Your task to perform on an android device: change keyboard looks Image 0: 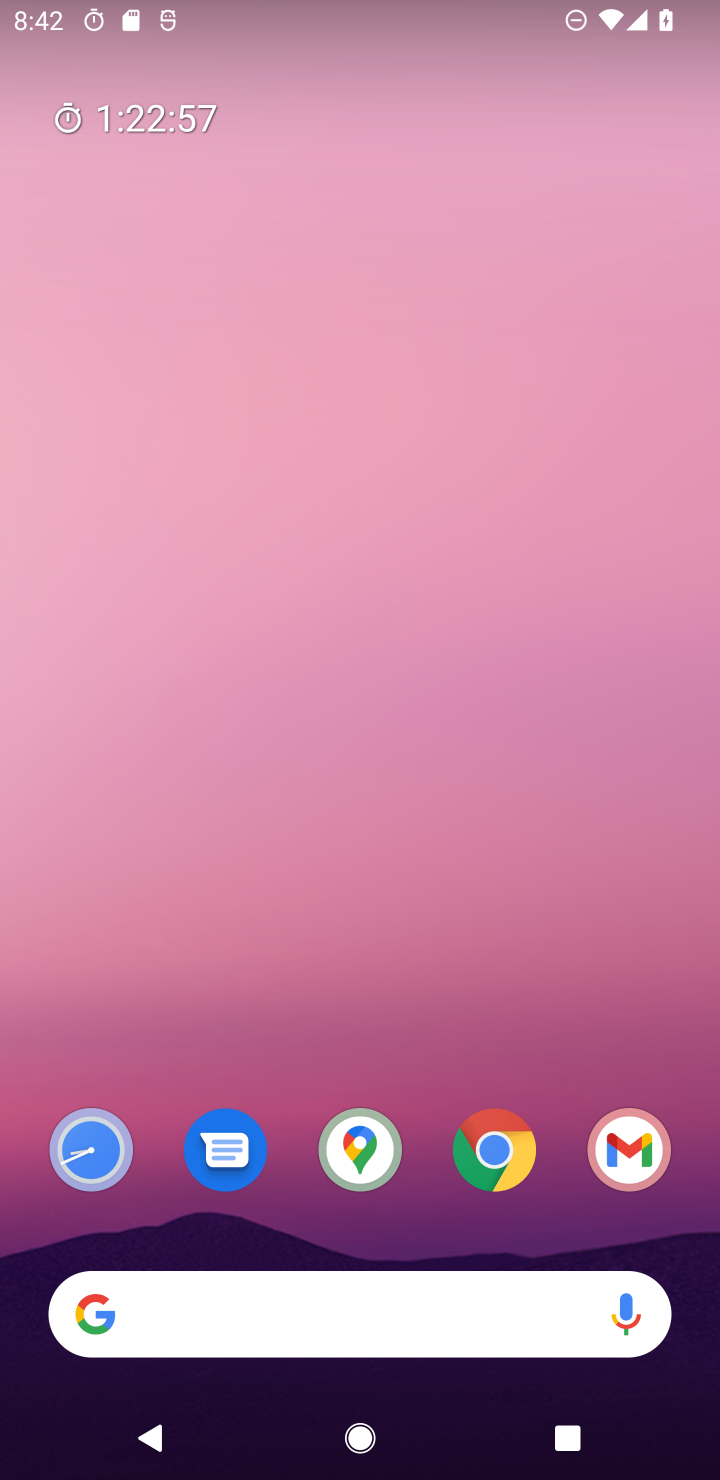
Step 0: drag from (502, 1169) to (562, 1)
Your task to perform on an android device: change keyboard looks Image 1: 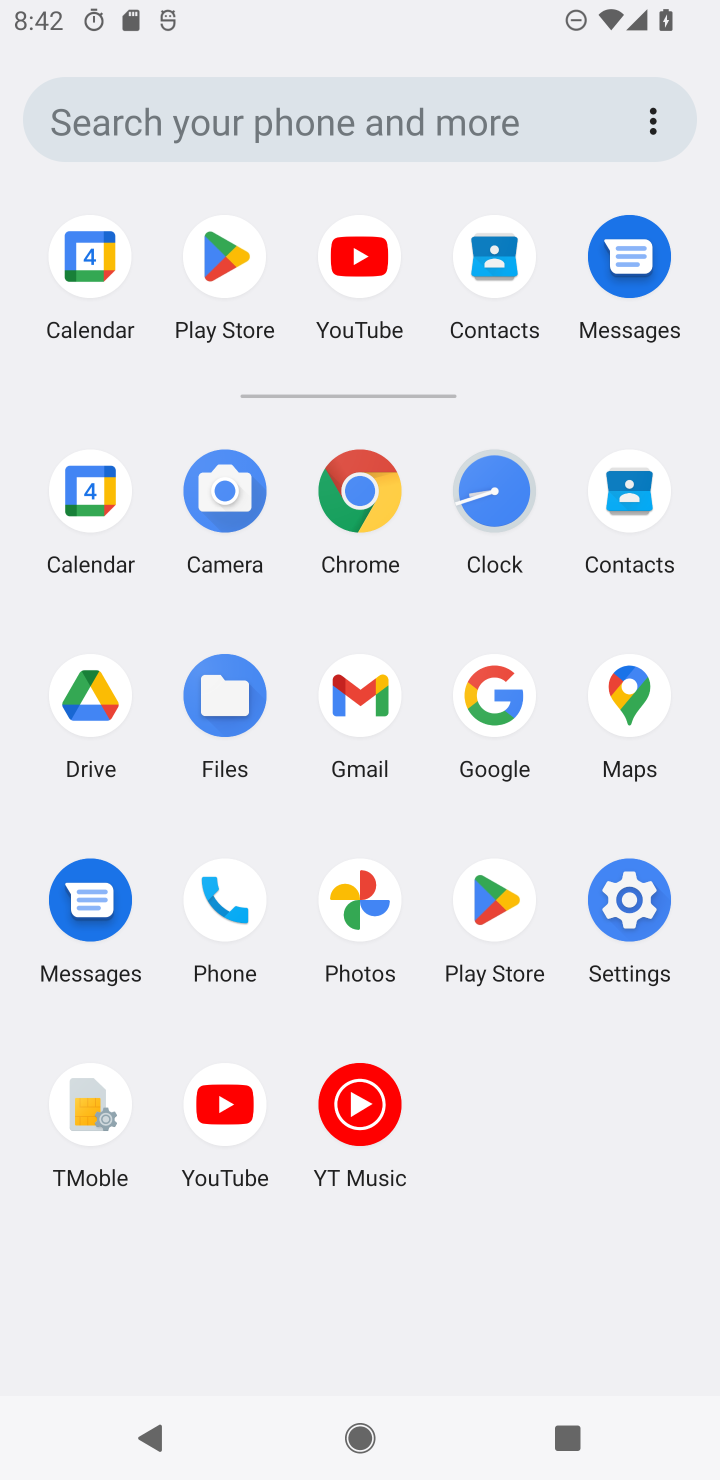
Step 1: click (631, 902)
Your task to perform on an android device: change keyboard looks Image 2: 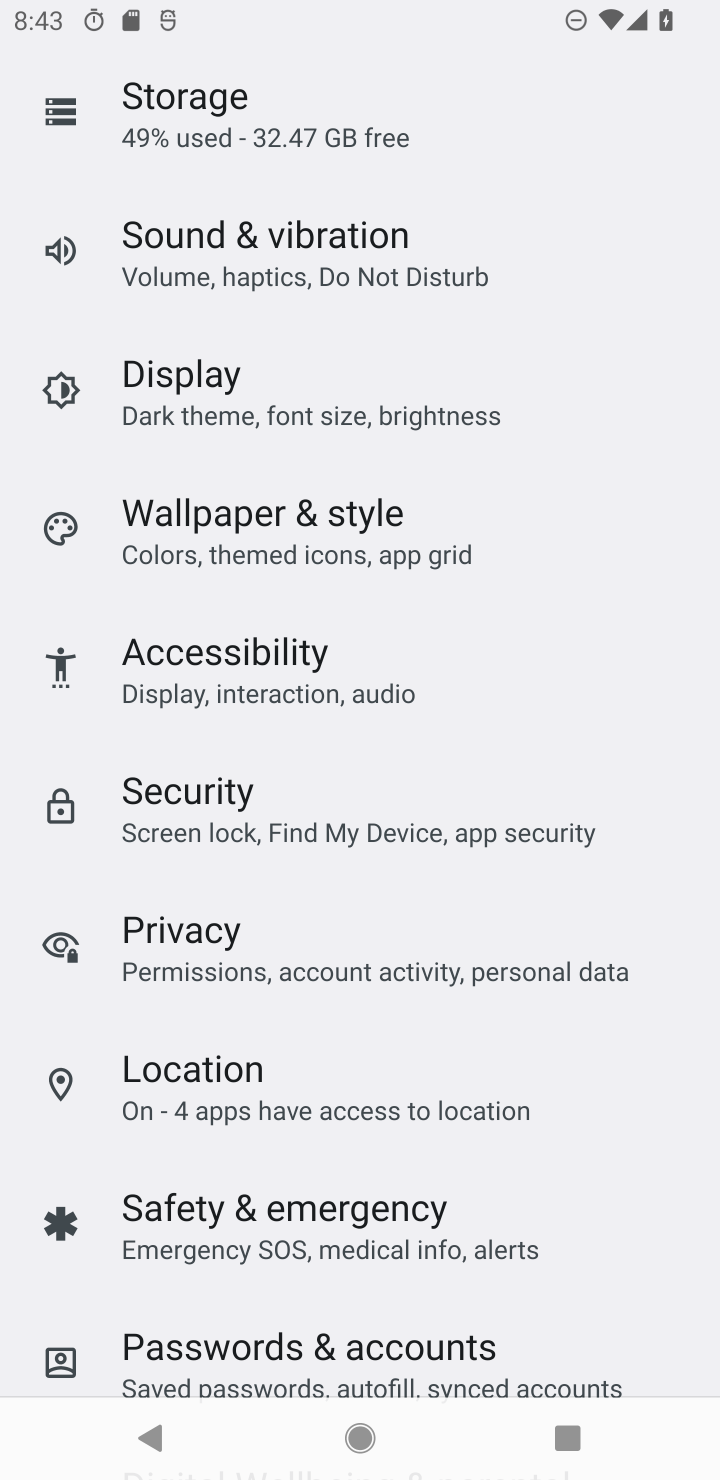
Step 2: drag from (272, 1280) to (270, 305)
Your task to perform on an android device: change keyboard looks Image 3: 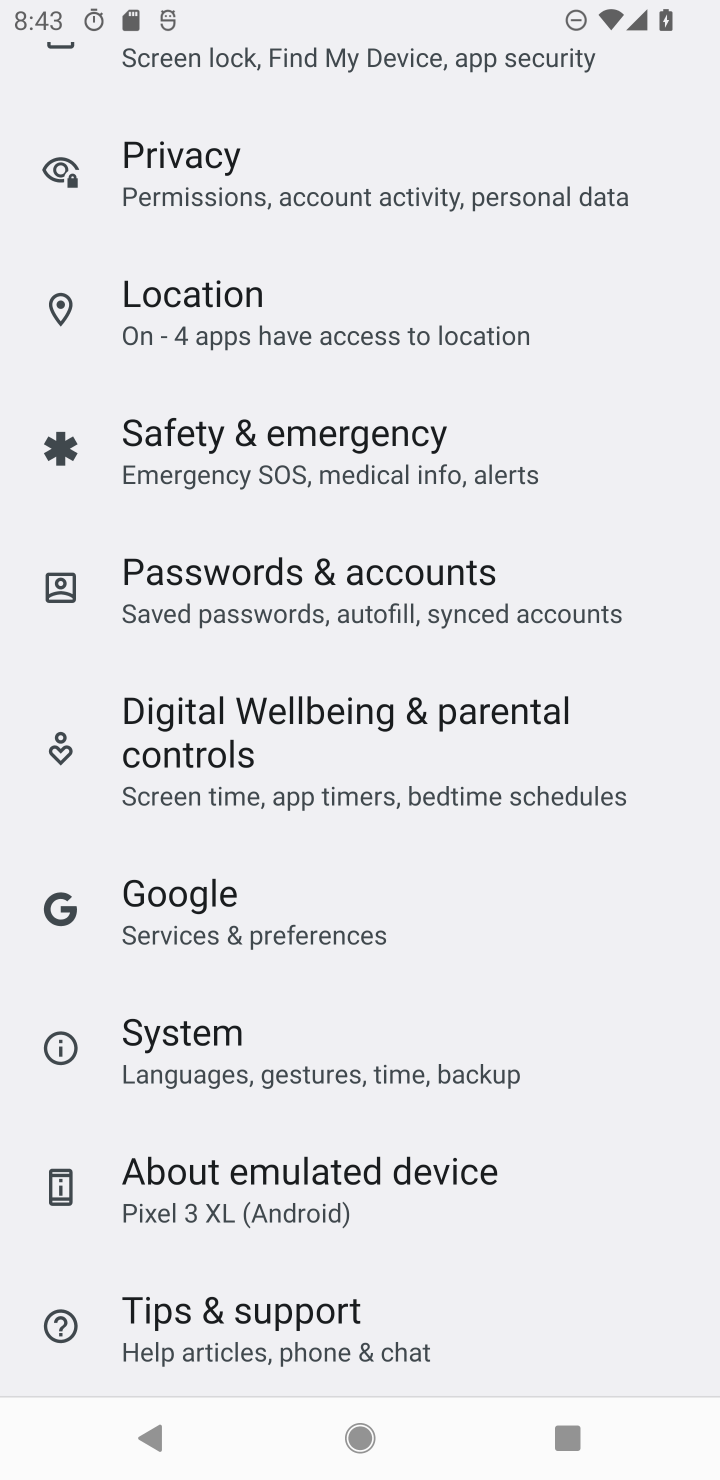
Step 3: click (299, 1059)
Your task to perform on an android device: change keyboard looks Image 4: 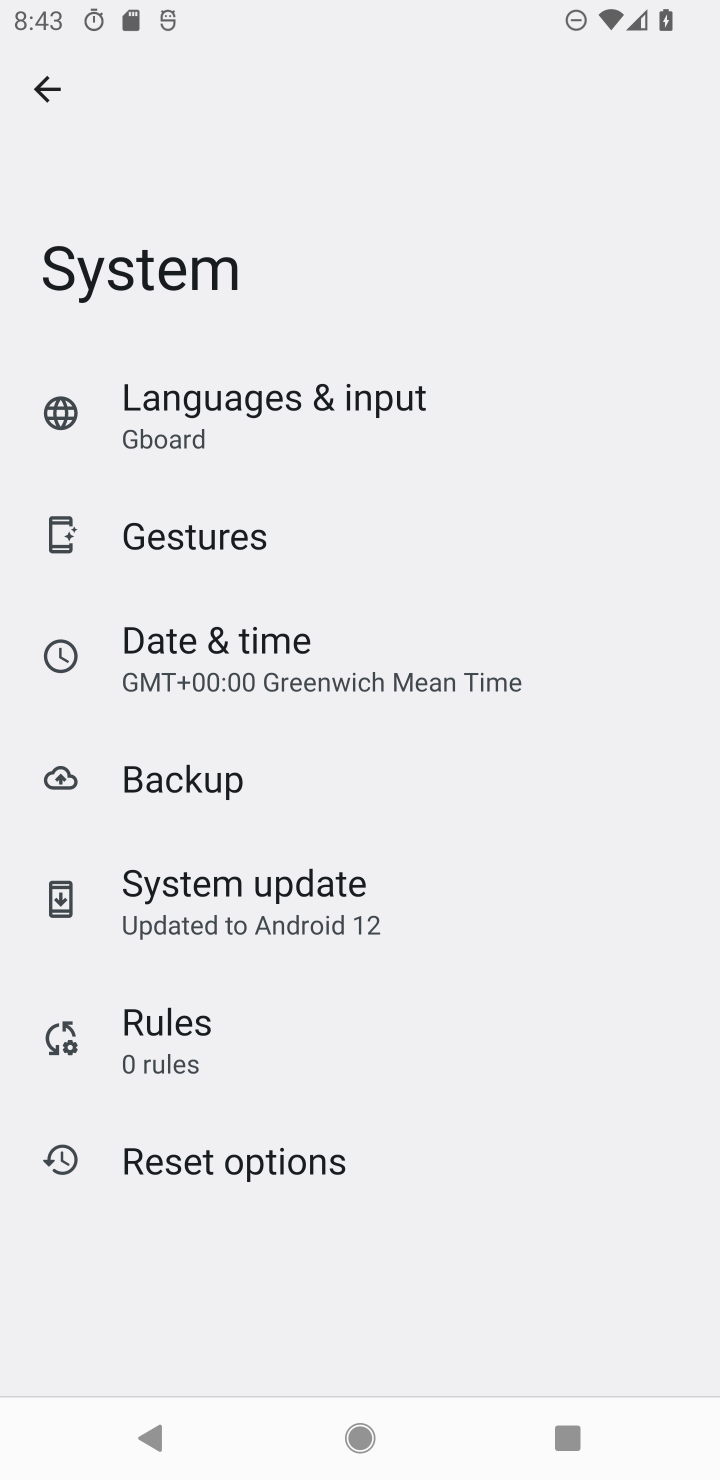
Step 4: click (246, 442)
Your task to perform on an android device: change keyboard looks Image 5: 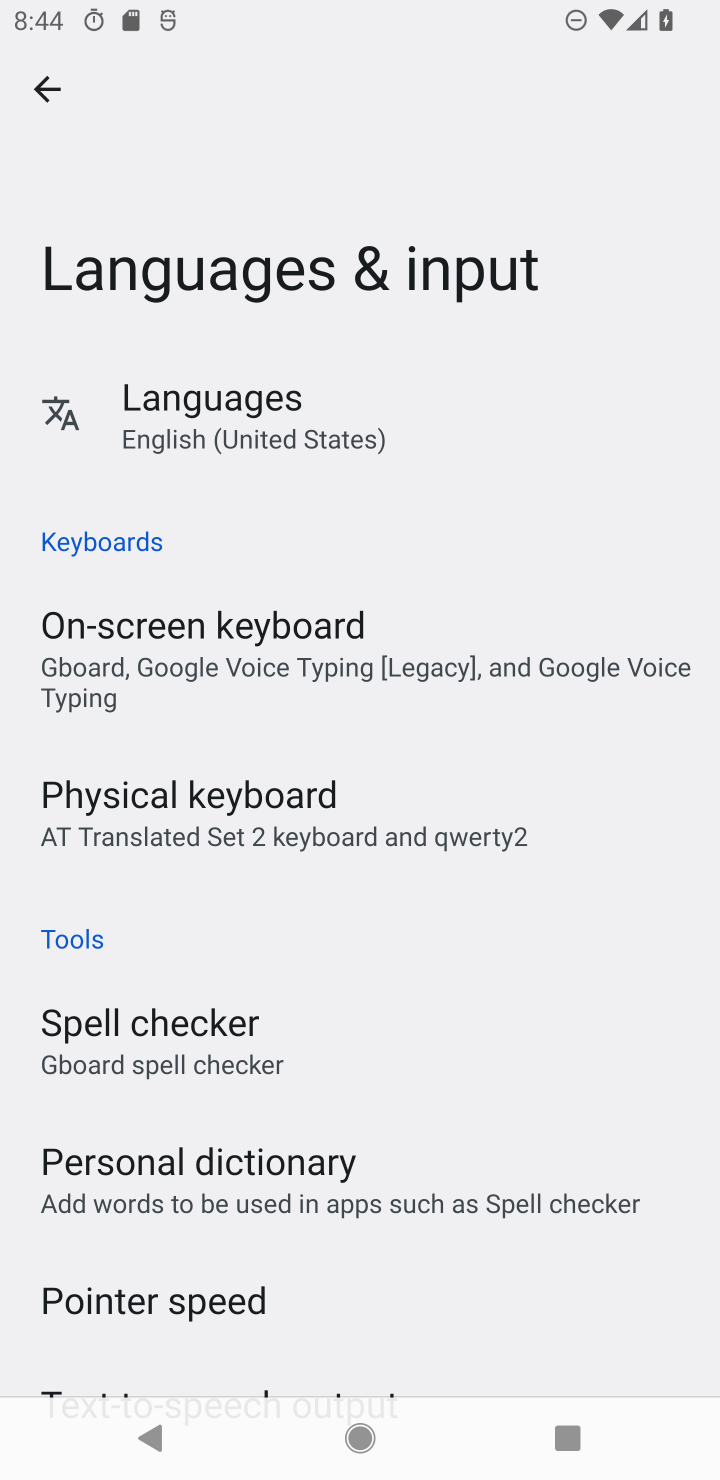
Step 5: drag from (203, 1148) to (265, 210)
Your task to perform on an android device: change keyboard looks Image 6: 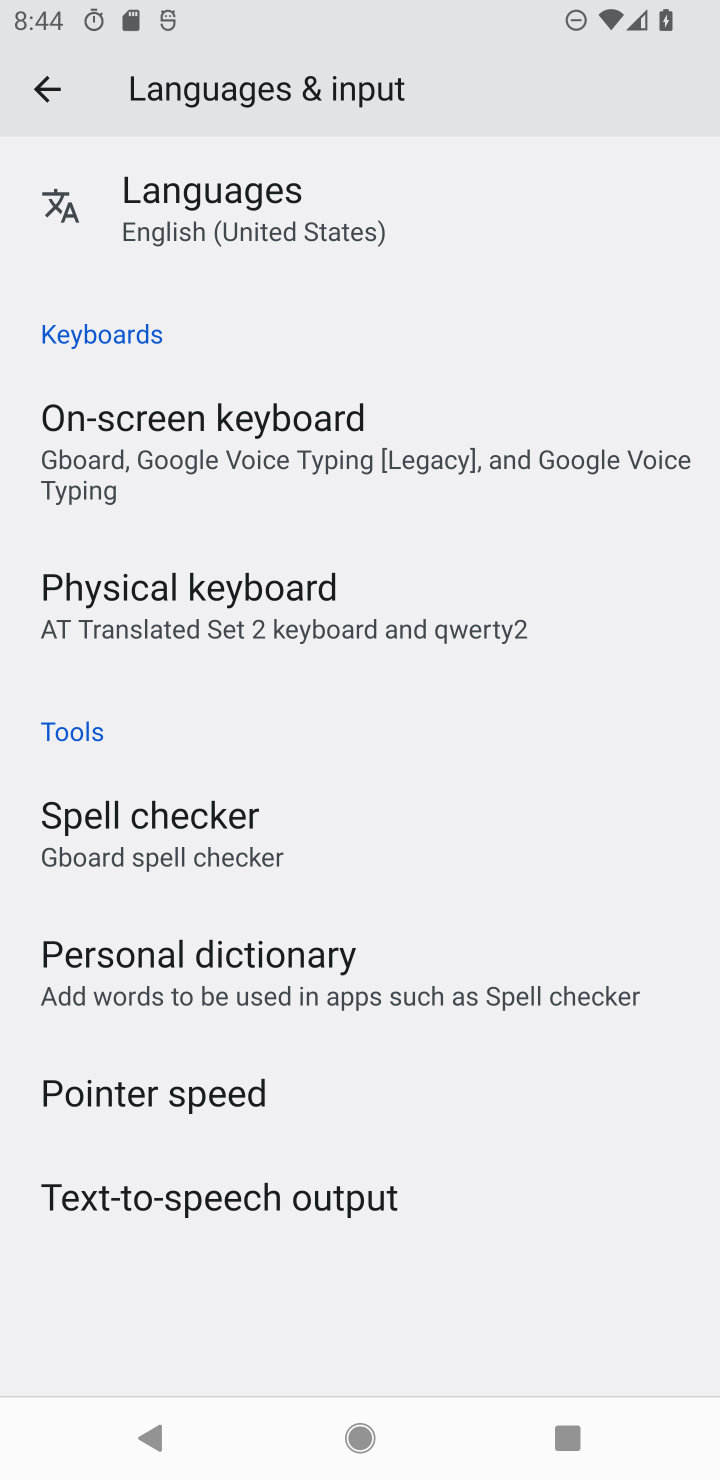
Step 6: drag from (347, 711) to (391, 1371)
Your task to perform on an android device: change keyboard looks Image 7: 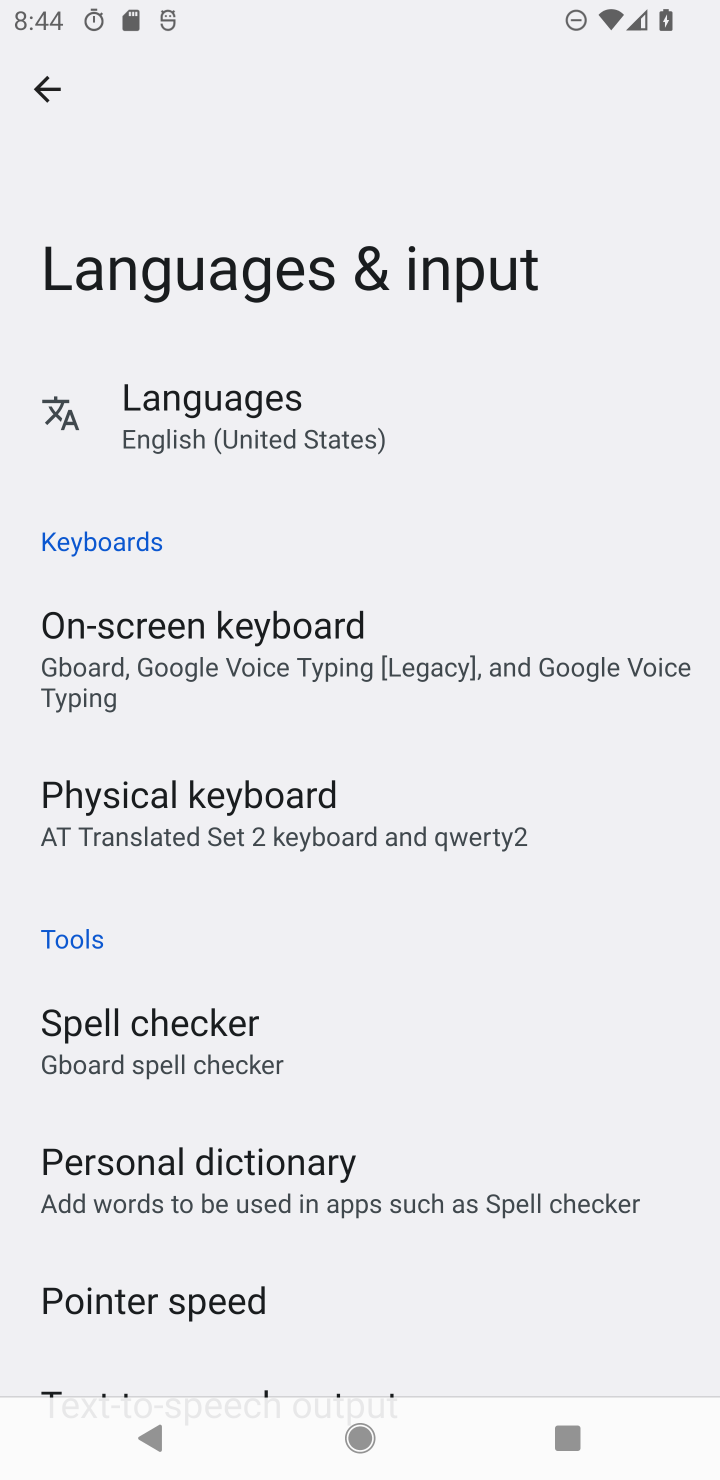
Step 7: click (276, 382)
Your task to perform on an android device: change keyboard looks Image 8: 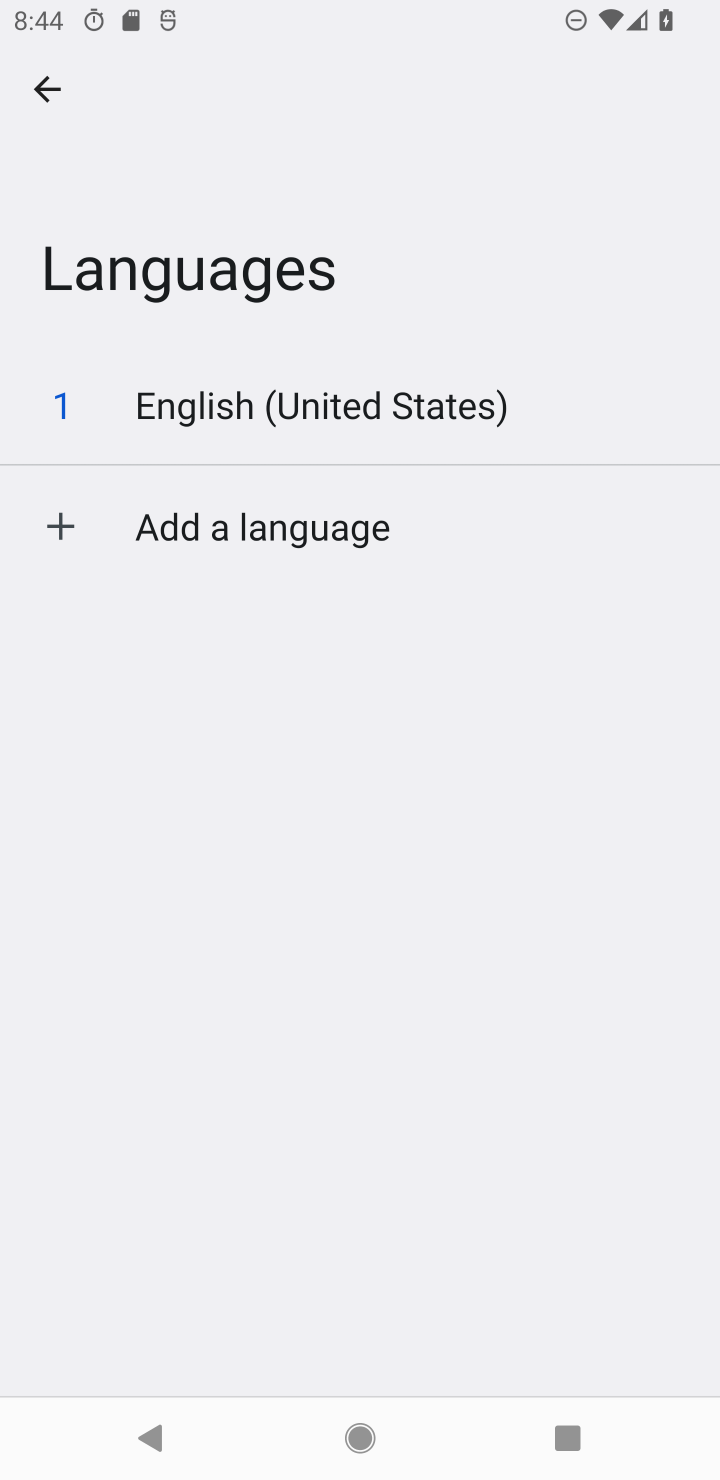
Step 8: press back button
Your task to perform on an android device: change keyboard looks Image 9: 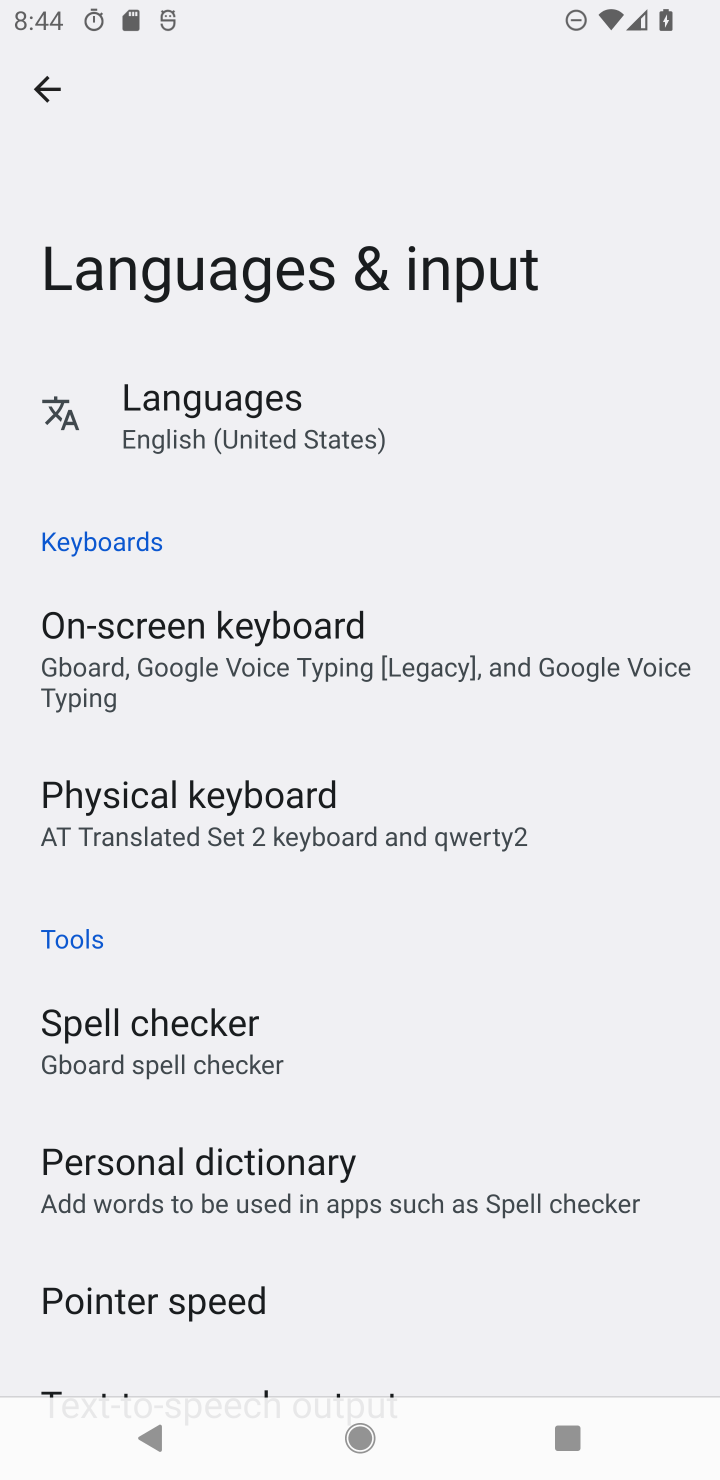
Step 9: press back button
Your task to perform on an android device: change keyboard looks Image 10: 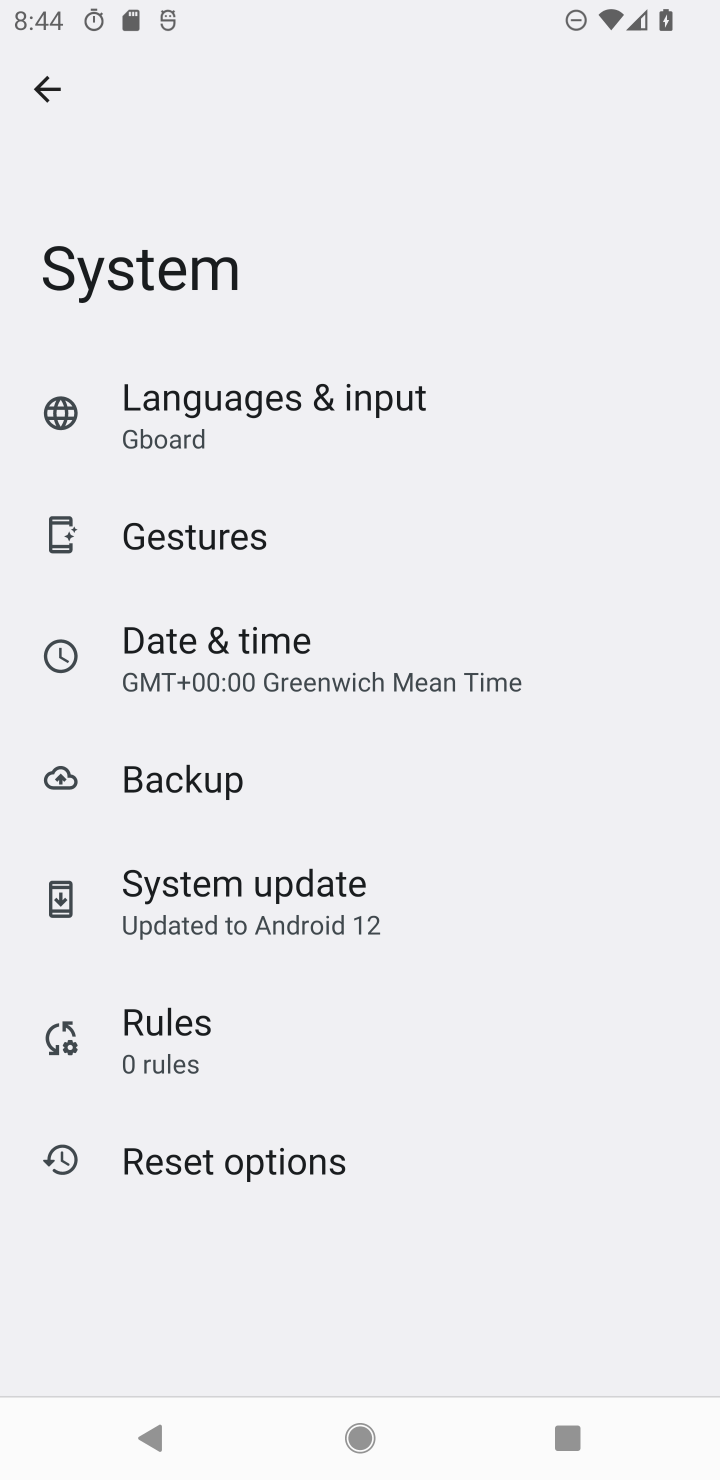
Step 10: click (240, 424)
Your task to perform on an android device: change keyboard looks Image 11: 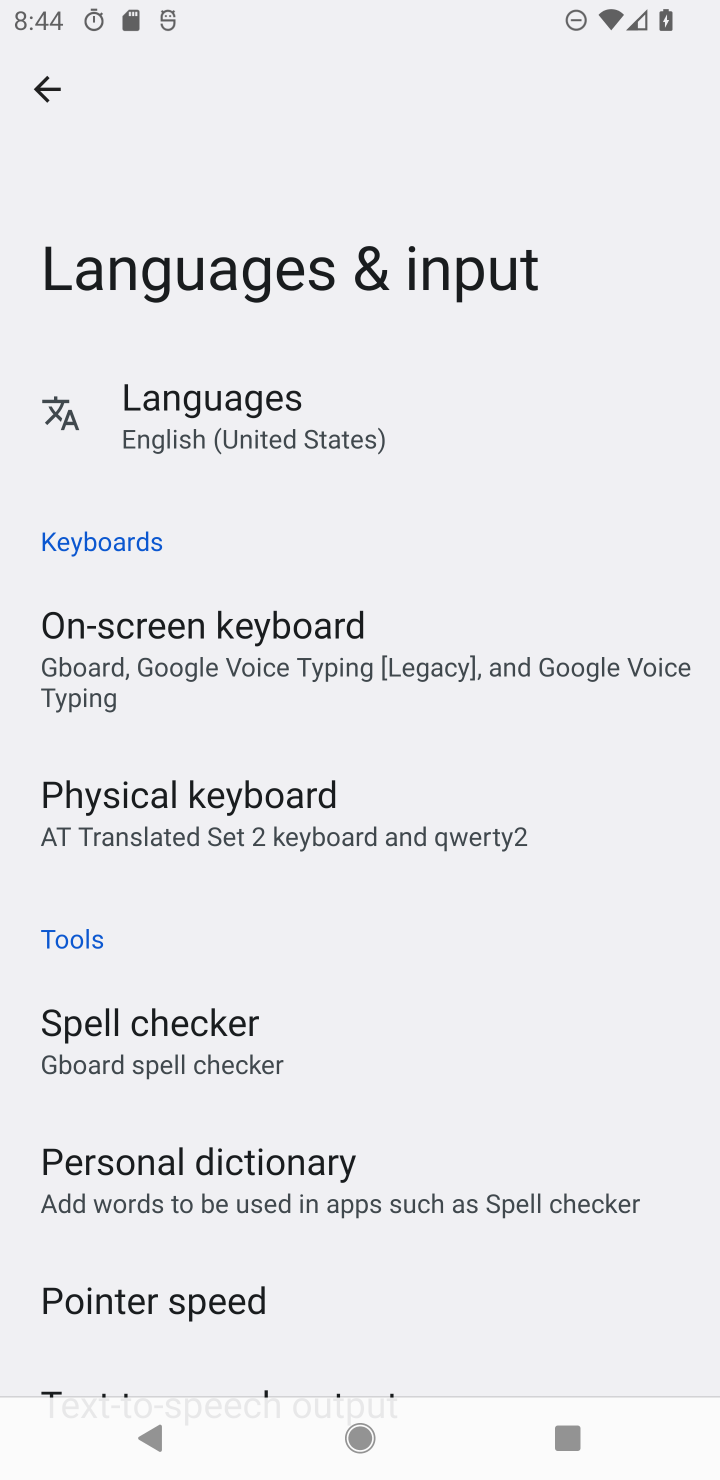
Step 11: drag from (340, 1318) to (237, 187)
Your task to perform on an android device: change keyboard looks Image 12: 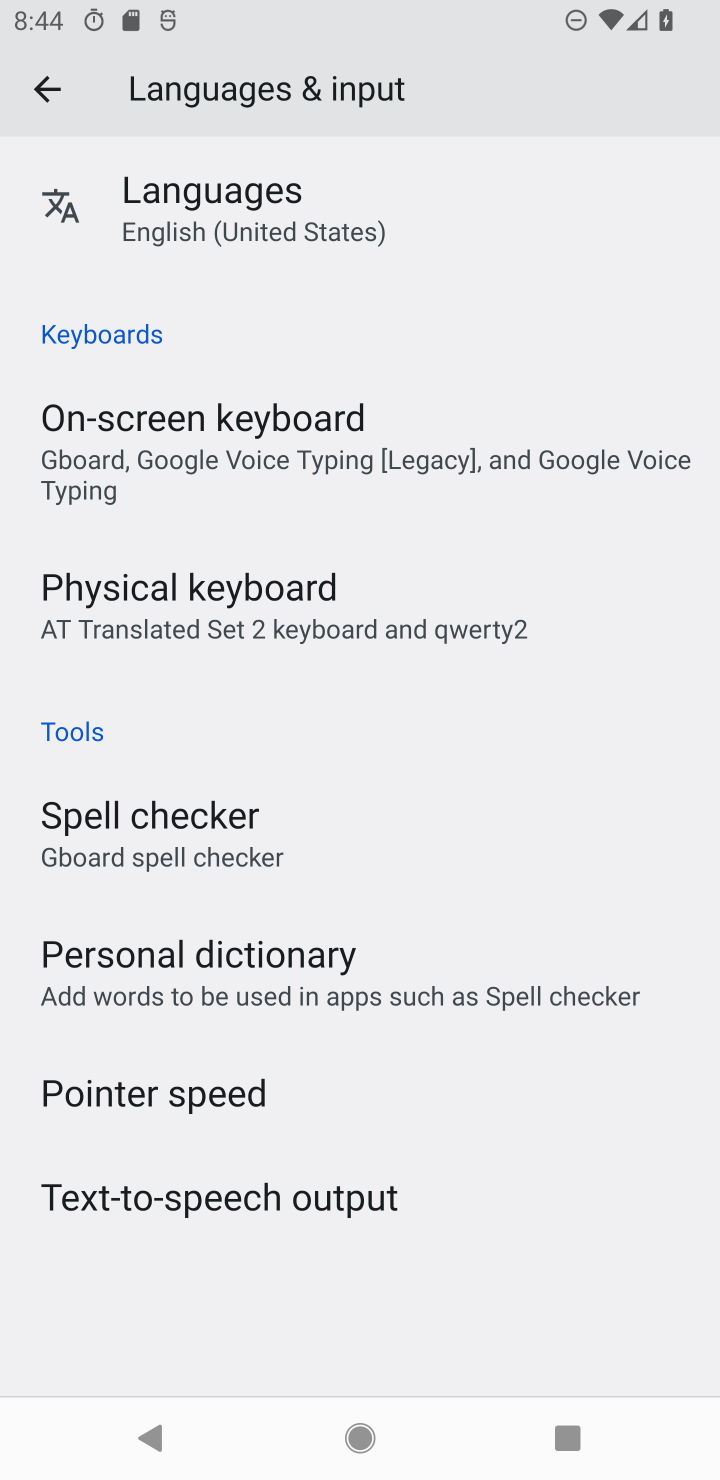
Step 12: drag from (343, 333) to (305, 882)
Your task to perform on an android device: change keyboard looks Image 13: 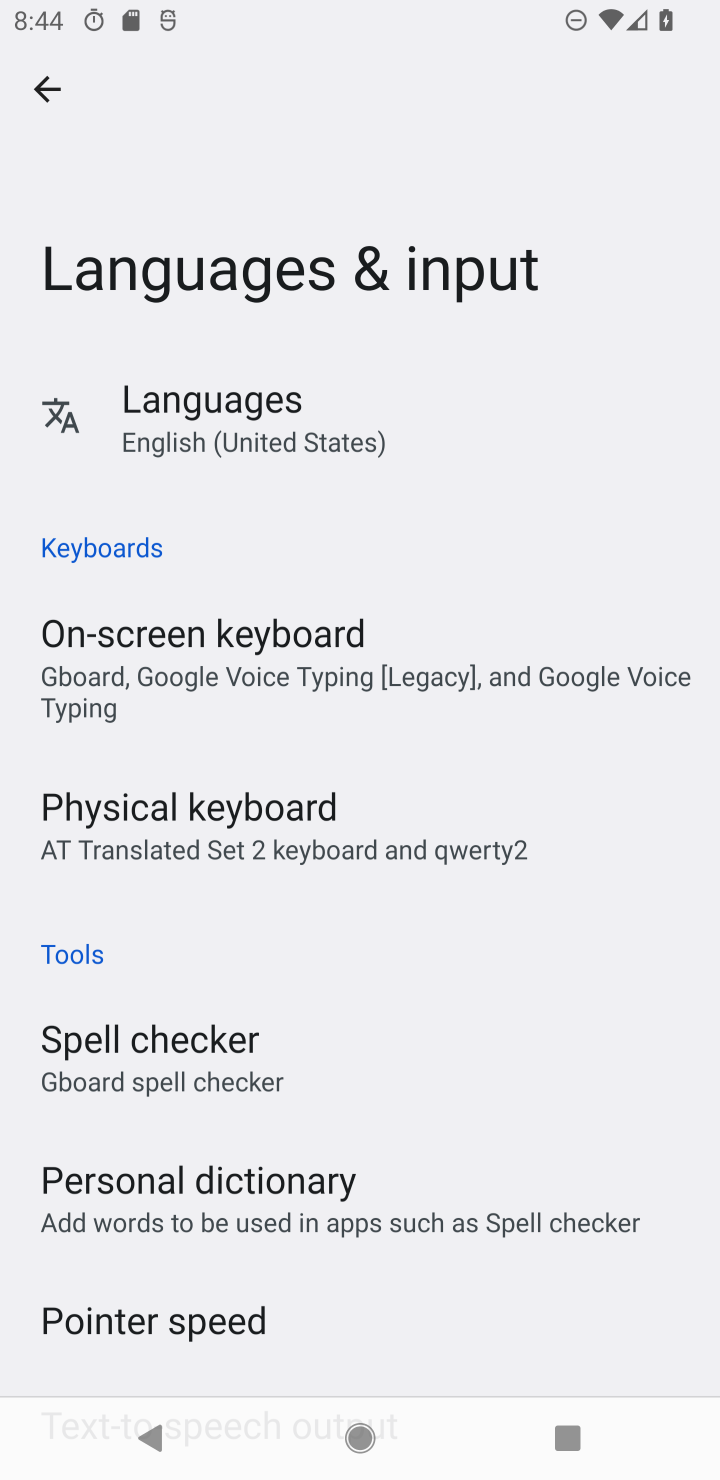
Step 13: click (286, 813)
Your task to perform on an android device: change keyboard looks Image 14: 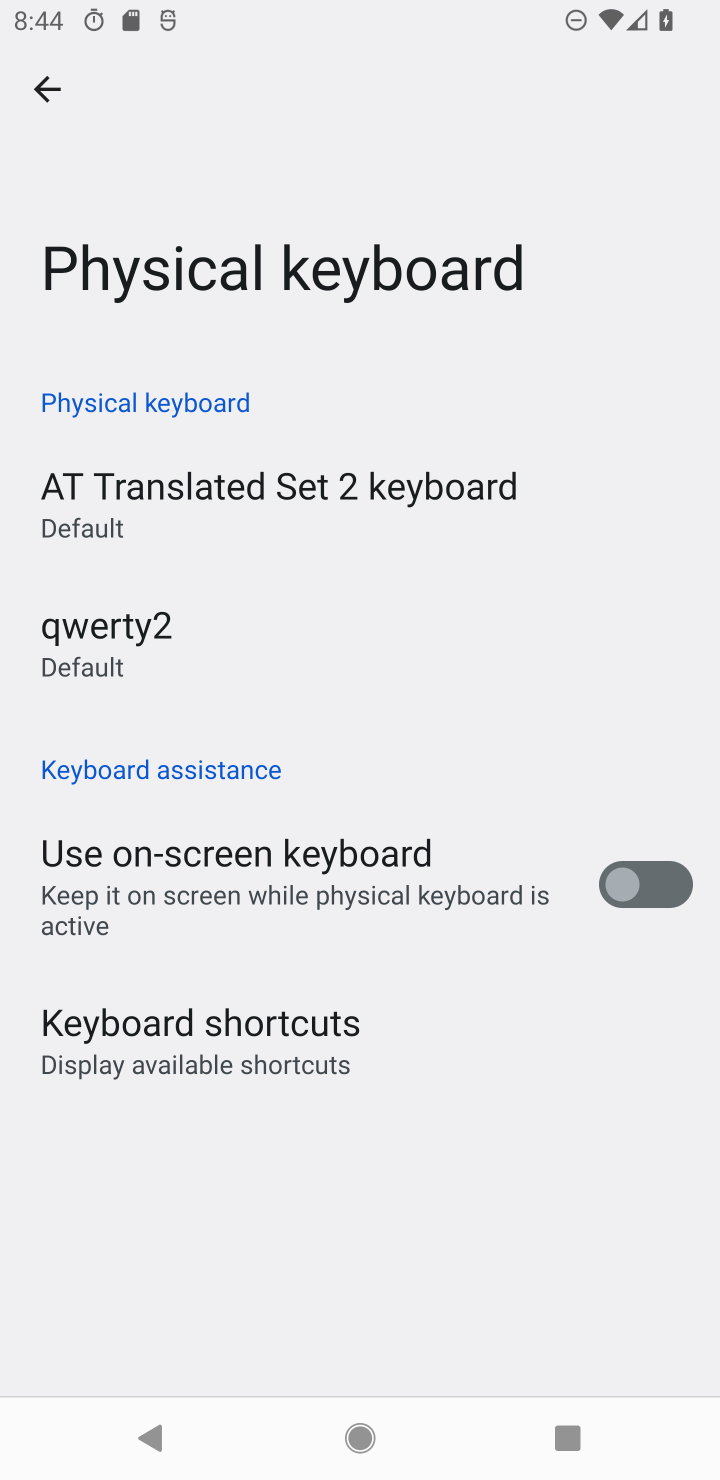
Step 14: task complete